Your task to perform on an android device: toggle notifications settings in the gmail app Image 0: 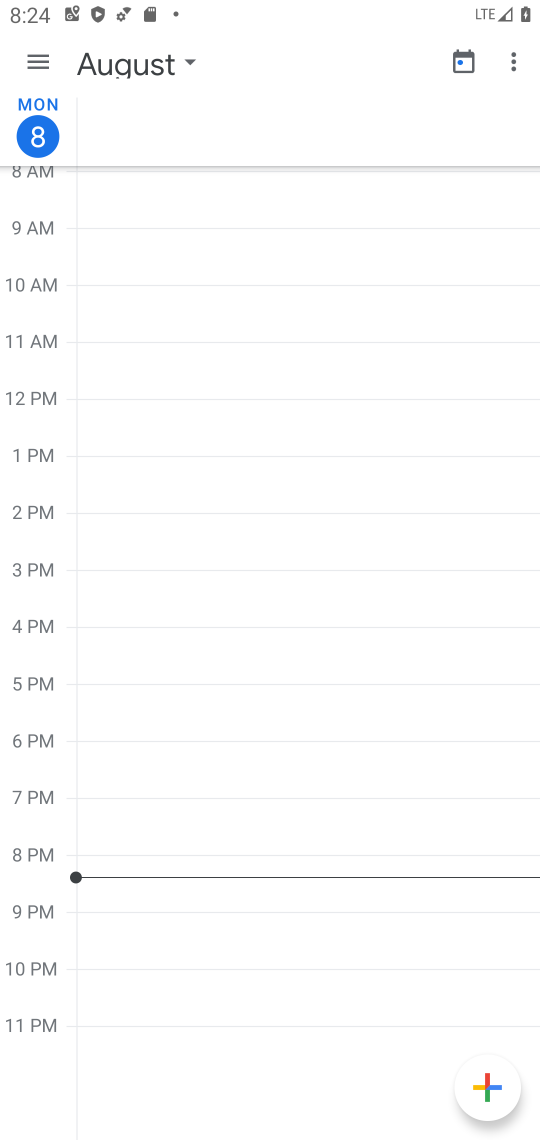
Step 0: press home button
Your task to perform on an android device: toggle notifications settings in the gmail app Image 1: 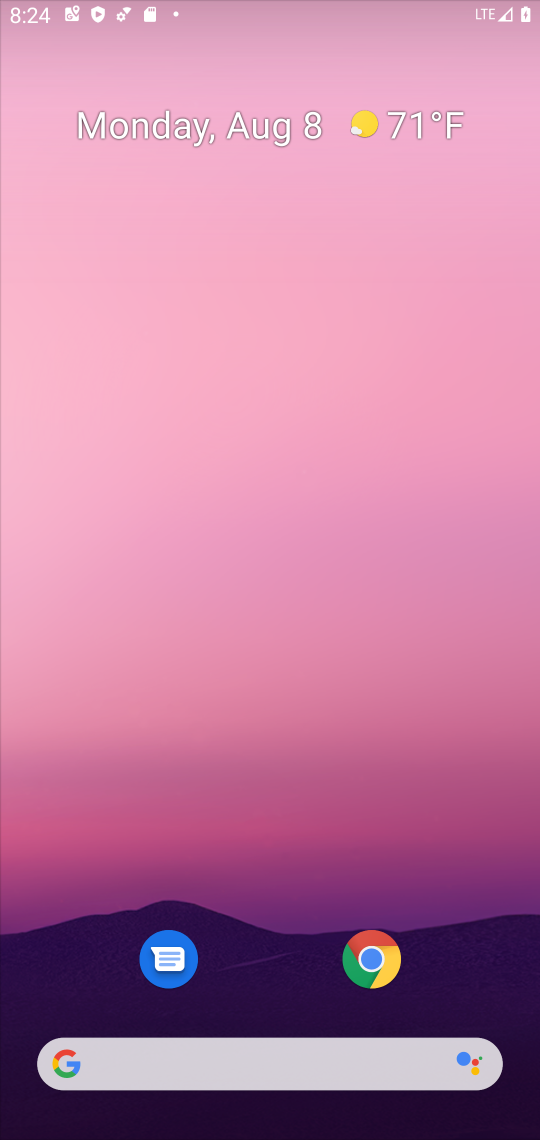
Step 1: drag from (477, 962) to (250, 90)
Your task to perform on an android device: toggle notifications settings in the gmail app Image 2: 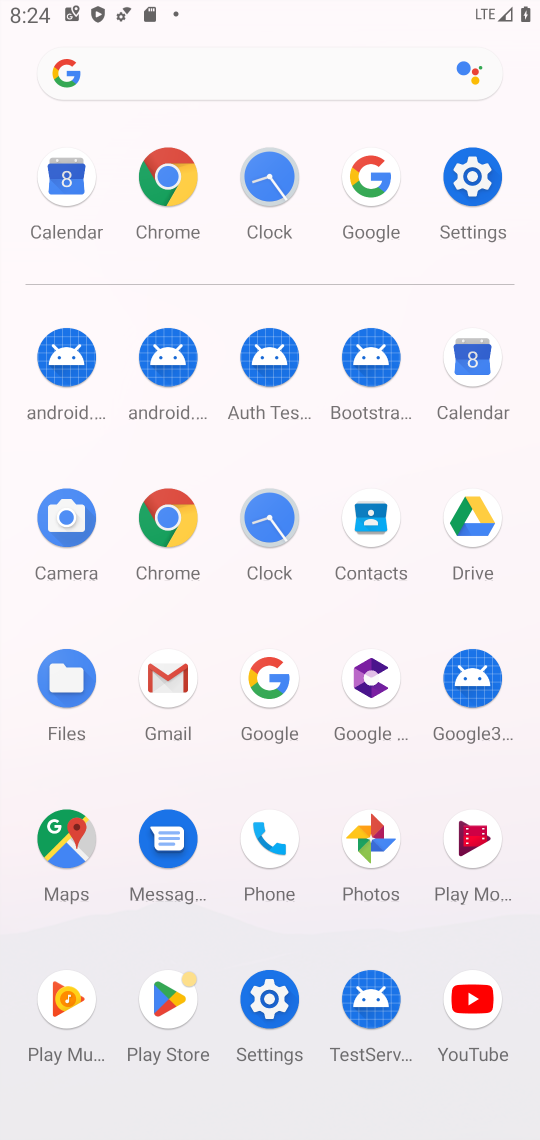
Step 2: click (171, 673)
Your task to perform on an android device: toggle notifications settings in the gmail app Image 3: 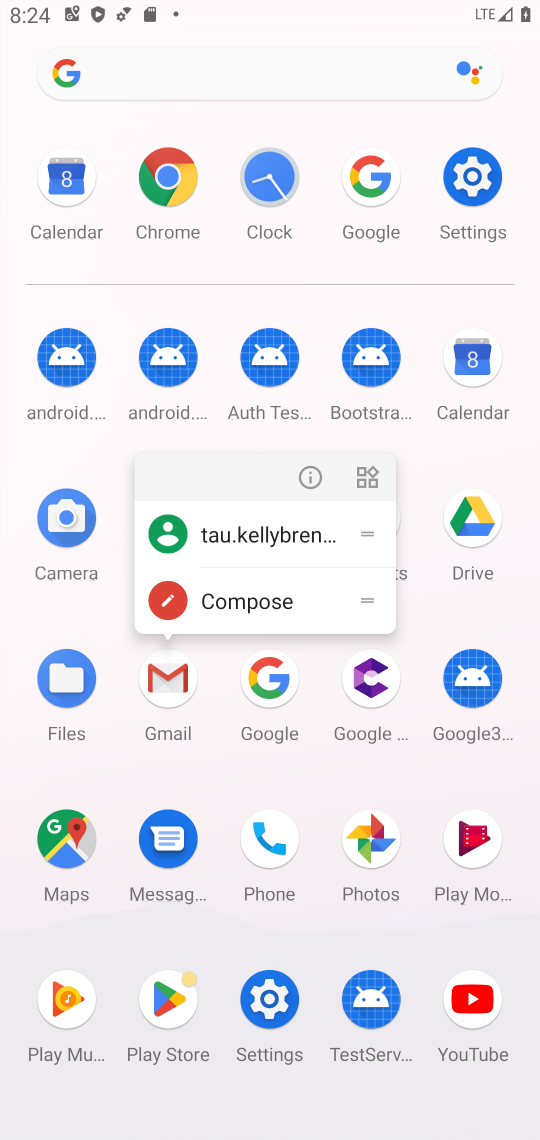
Step 3: click (171, 675)
Your task to perform on an android device: toggle notifications settings in the gmail app Image 4: 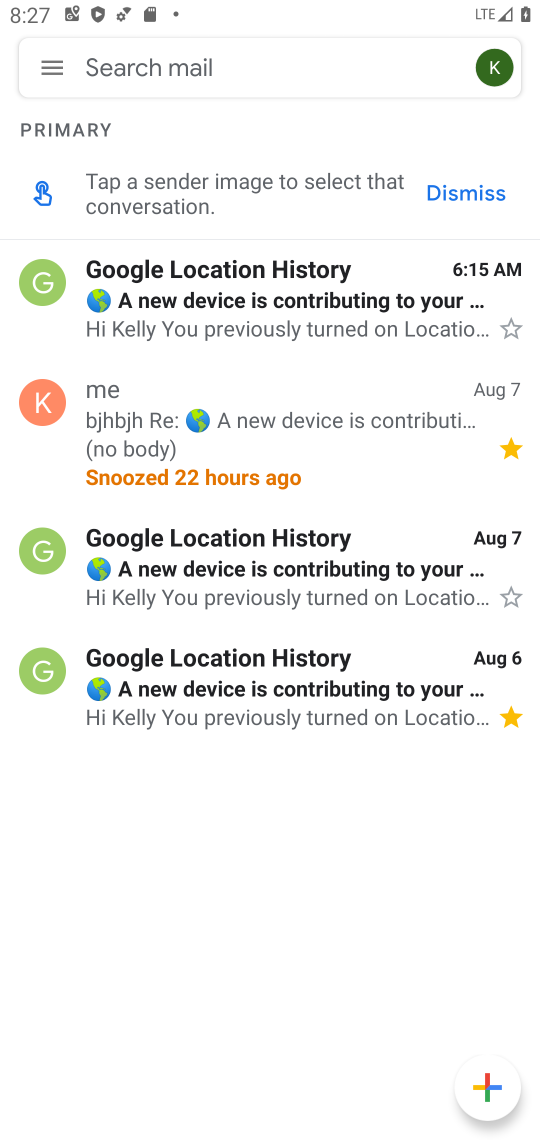
Step 4: click (39, 65)
Your task to perform on an android device: toggle notifications settings in the gmail app Image 5: 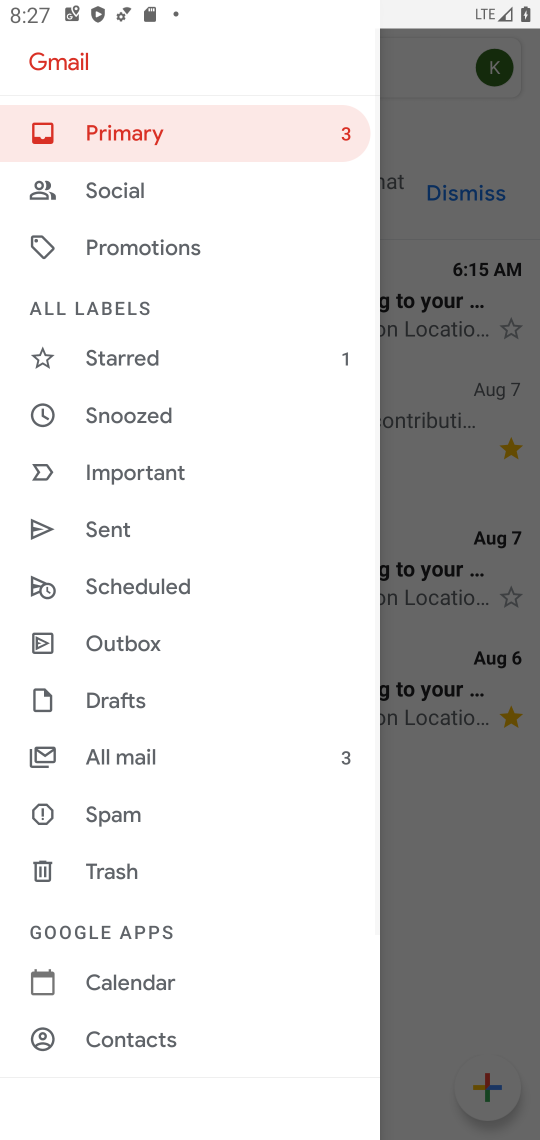
Step 5: drag from (152, 1013) to (156, 65)
Your task to perform on an android device: toggle notifications settings in the gmail app Image 6: 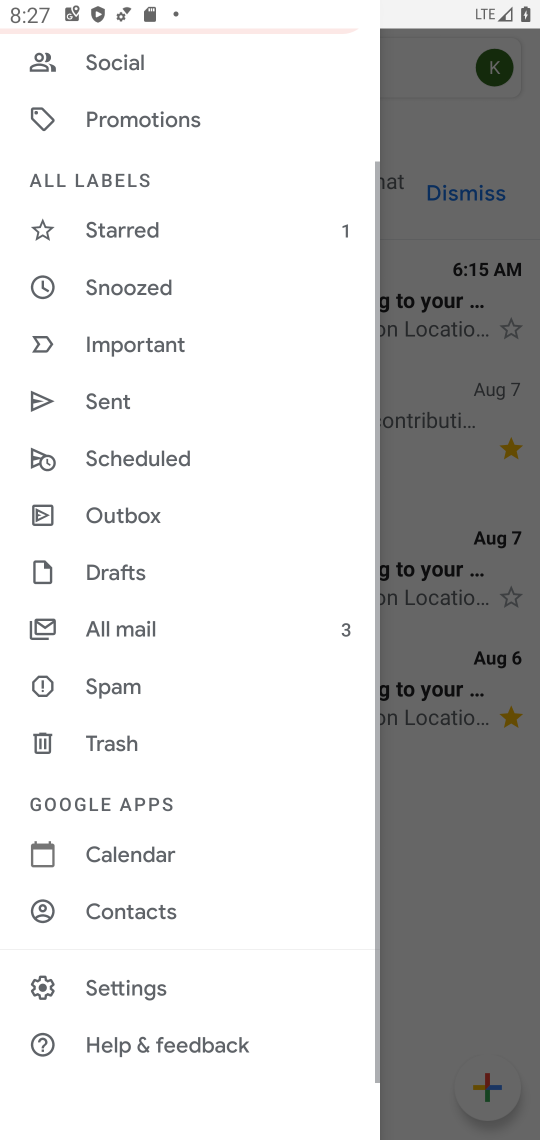
Step 6: click (119, 987)
Your task to perform on an android device: toggle notifications settings in the gmail app Image 7: 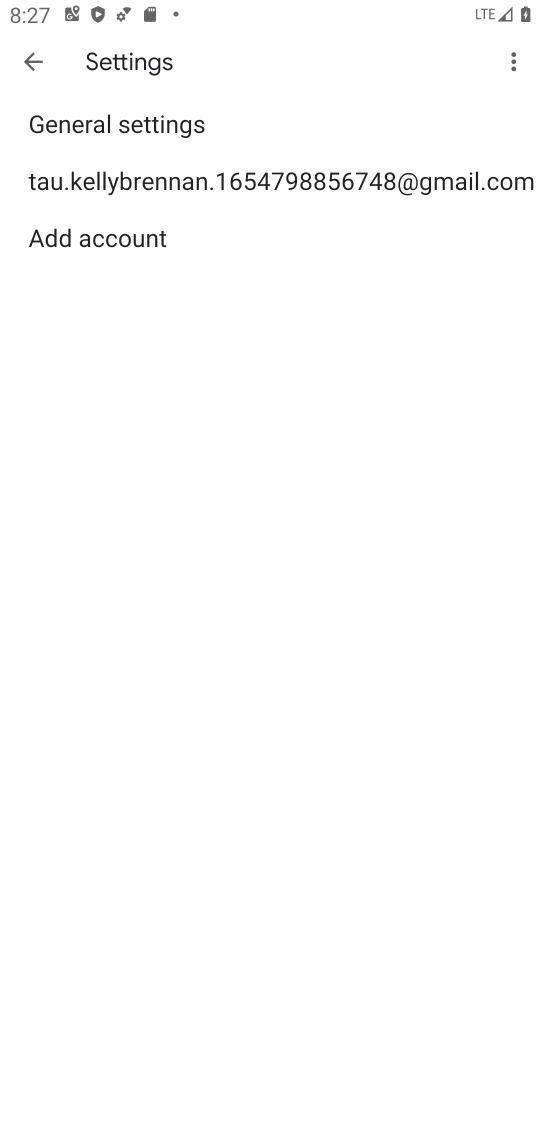
Step 7: click (120, 176)
Your task to perform on an android device: toggle notifications settings in the gmail app Image 8: 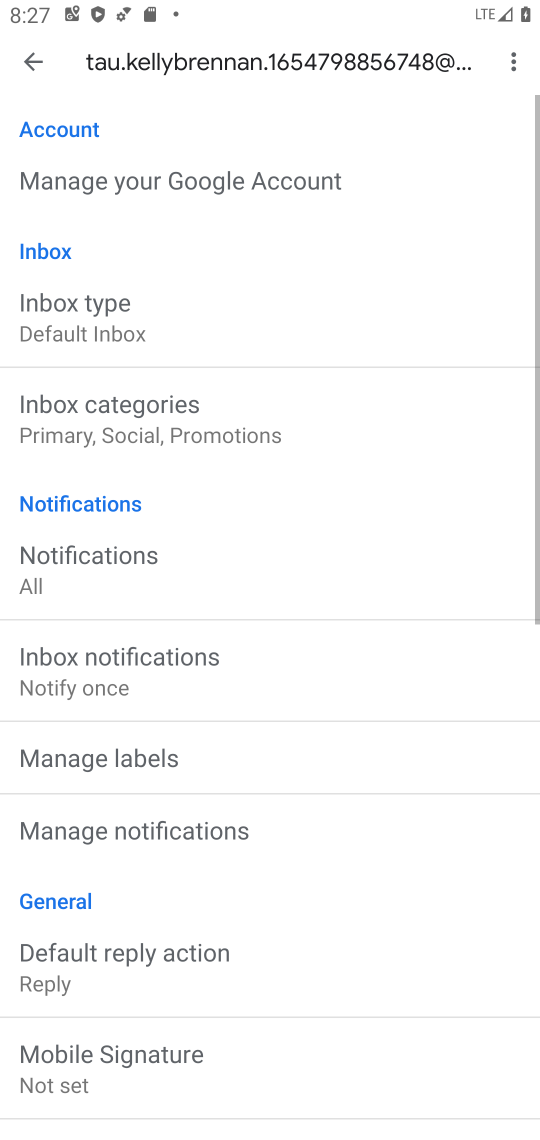
Step 8: click (67, 594)
Your task to perform on an android device: toggle notifications settings in the gmail app Image 9: 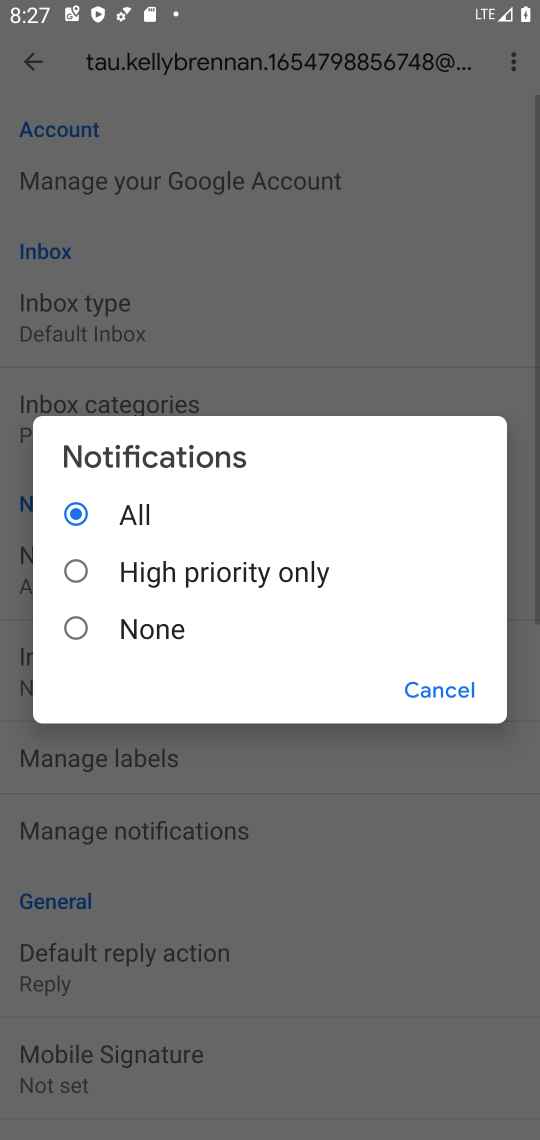
Step 9: click (121, 625)
Your task to perform on an android device: toggle notifications settings in the gmail app Image 10: 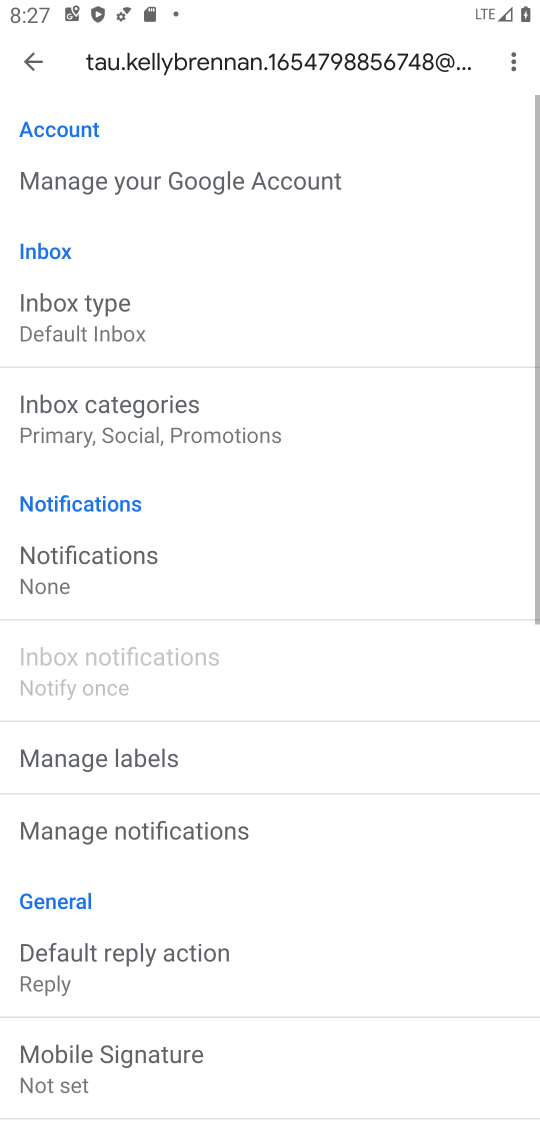
Step 10: task complete